Your task to perform on an android device: add a contact Image 0: 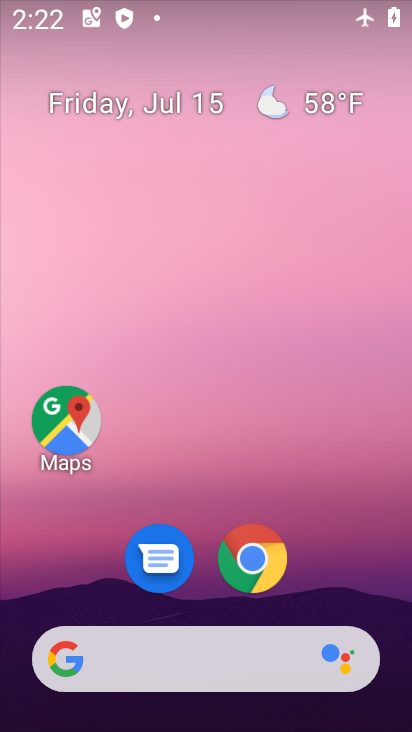
Step 0: drag from (353, 591) to (365, 142)
Your task to perform on an android device: add a contact Image 1: 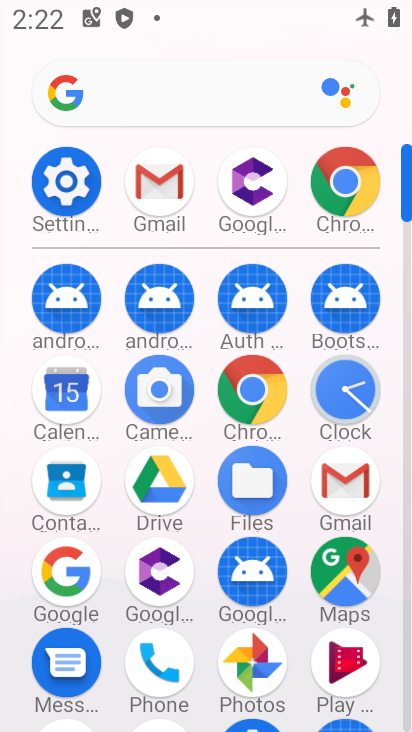
Step 1: click (77, 478)
Your task to perform on an android device: add a contact Image 2: 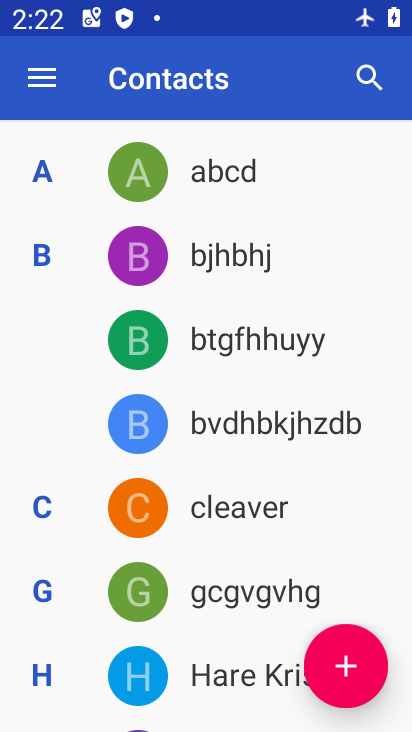
Step 2: click (344, 667)
Your task to perform on an android device: add a contact Image 3: 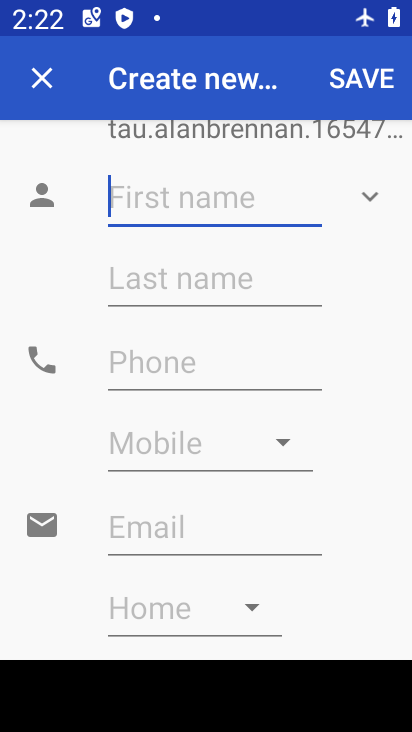
Step 3: type "fav"
Your task to perform on an android device: add a contact Image 4: 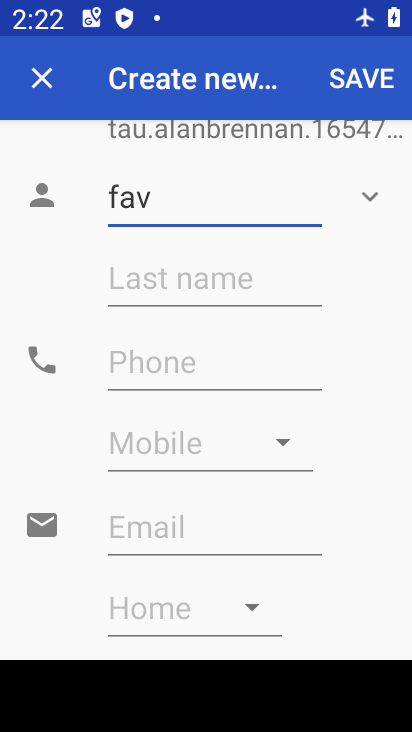
Step 4: click (275, 369)
Your task to perform on an android device: add a contact Image 5: 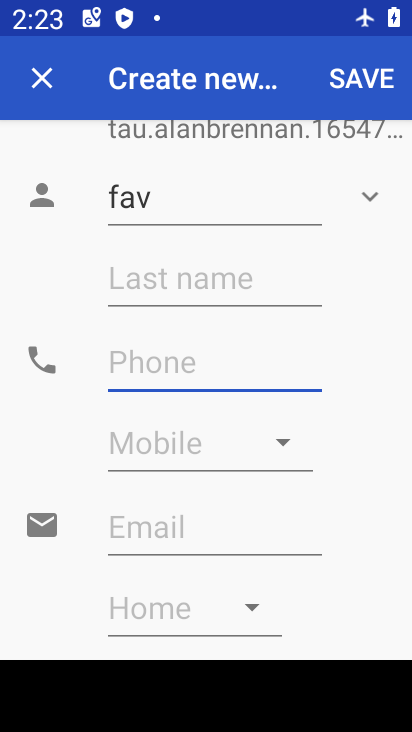
Step 5: type "1234567890"
Your task to perform on an android device: add a contact Image 6: 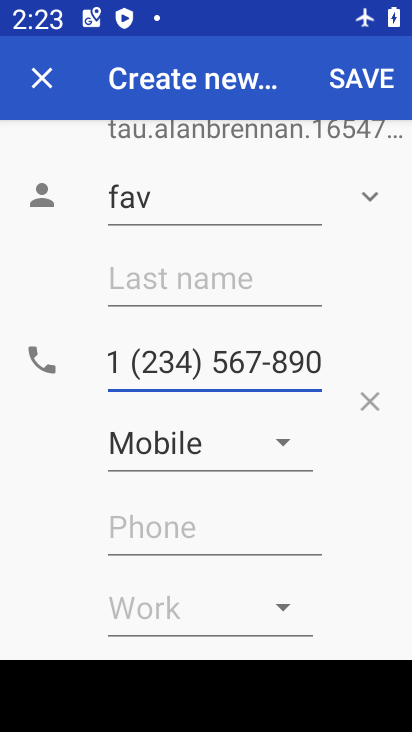
Step 6: click (366, 87)
Your task to perform on an android device: add a contact Image 7: 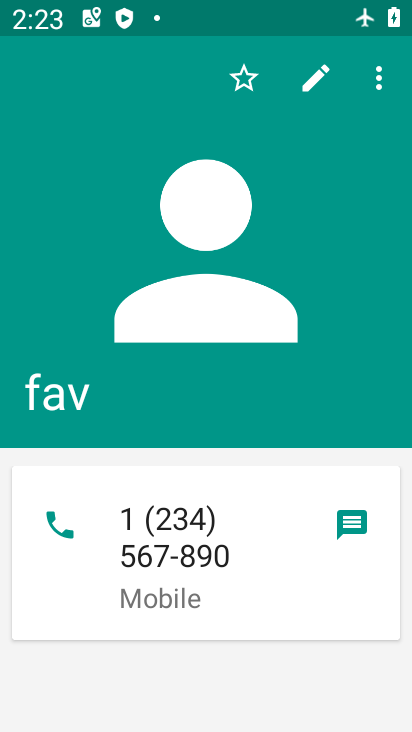
Step 7: task complete